Your task to perform on an android device: Open Android settings Image 0: 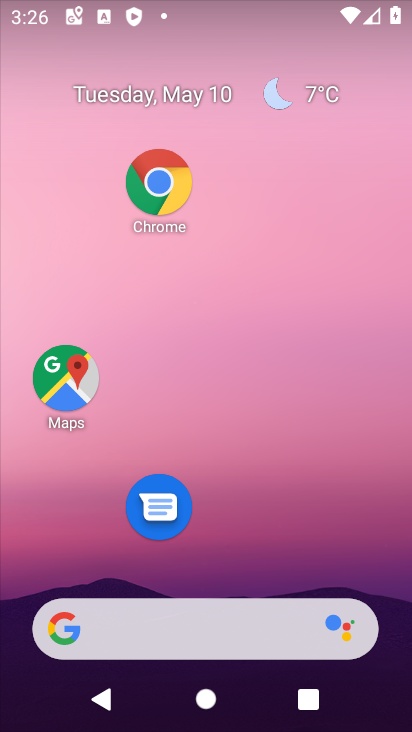
Step 0: drag from (304, 580) to (208, 54)
Your task to perform on an android device: Open Android settings Image 1: 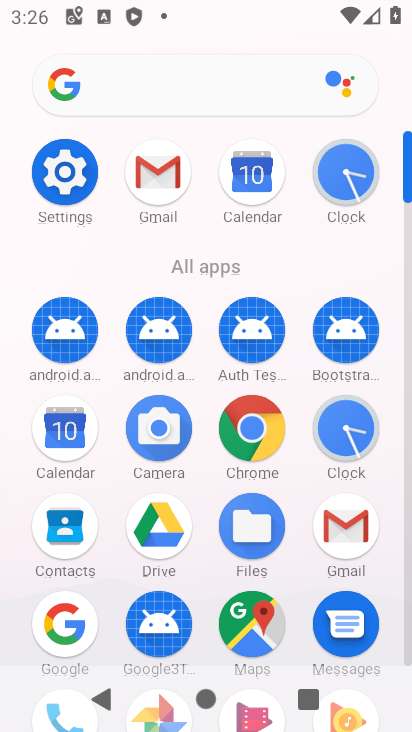
Step 1: click (64, 190)
Your task to perform on an android device: Open Android settings Image 2: 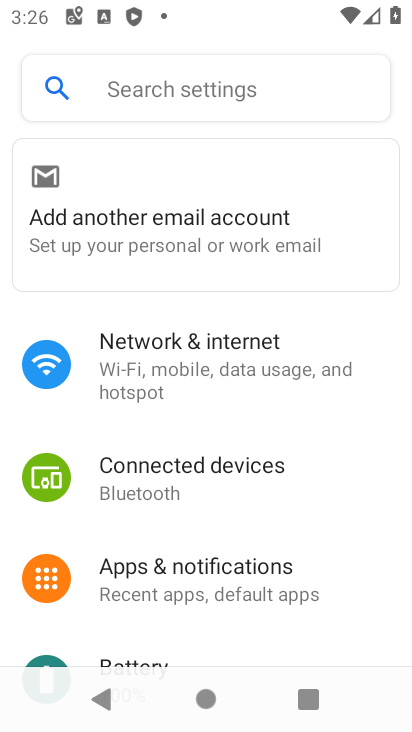
Step 2: task complete